Your task to perform on an android device: turn vacation reply on in the gmail app Image 0: 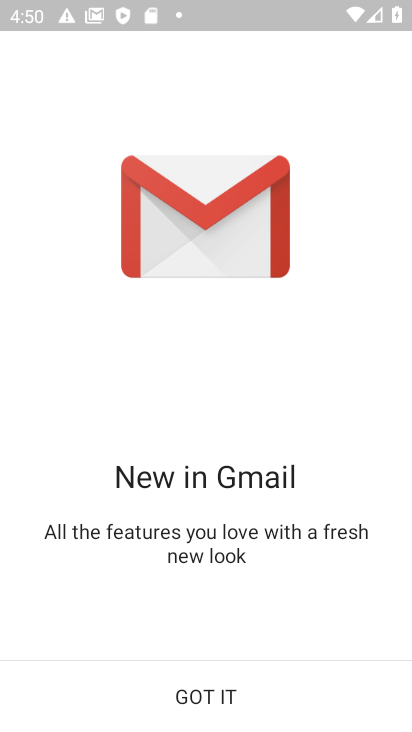
Step 0: click (281, 704)
Your task to perform on an android device: turn vacation reply on in the gmail app Image 1: 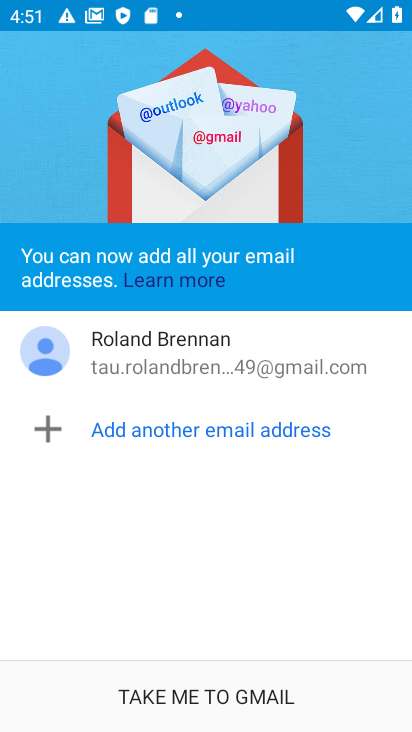
Step 1: click (304, 694)
Your task to perform on an android device: turn vacation reply on in the gmail app Image 2: 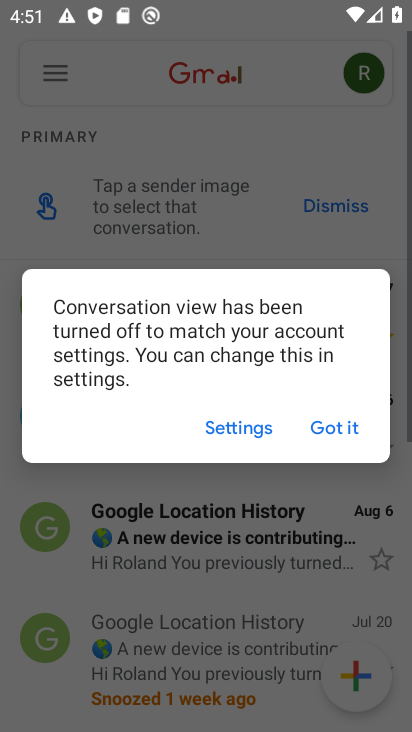
Step 2: click (315, 425)
Your task to perform on an android device: turn vacation reply on in the gmail app Image 3: 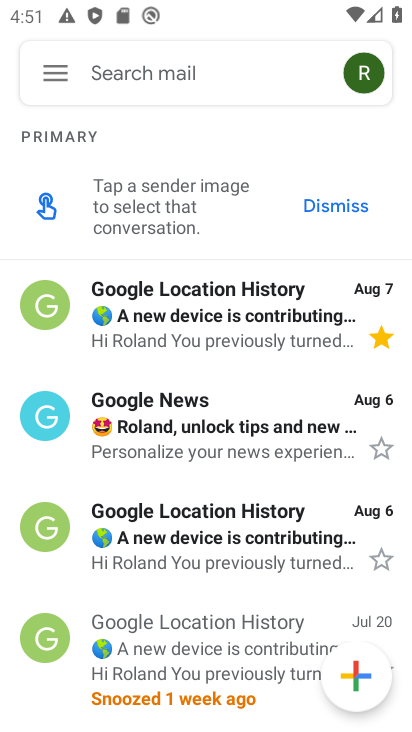
Step 3: click (58, 69)
Your task to perform on an android device: turn vacation reply on in the gmail app Image 4: 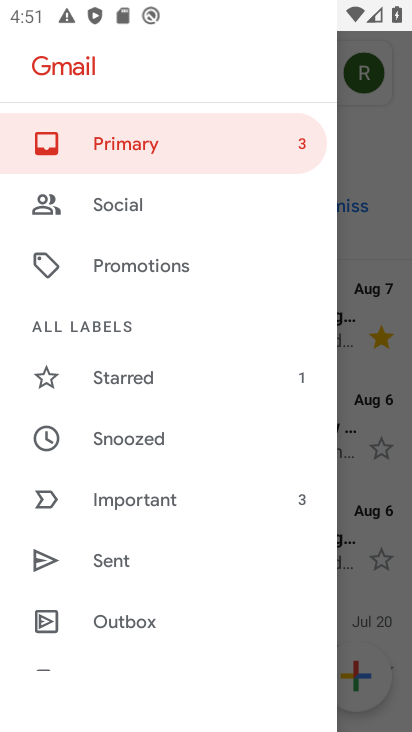
Step 4: drag from (189, 516) to (193, 219)
Your task to perform on an android device: turn vacation reply on in the gmail app Image 5: 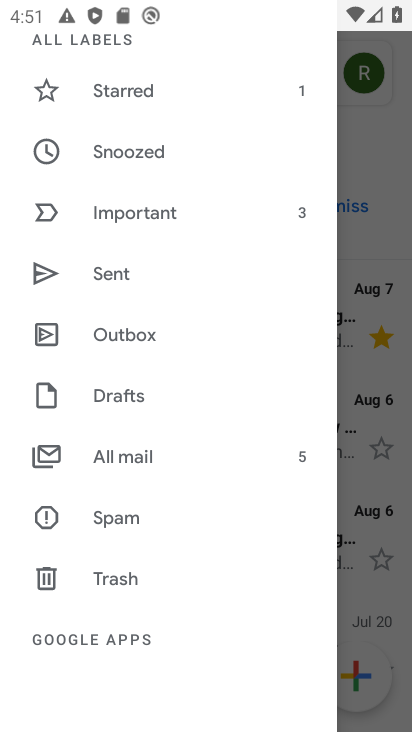
Step 5: drag from (173, 505) to (186, 144)
Your task to perform on an android device: turn vacation reply on in the gmail app Image 6: 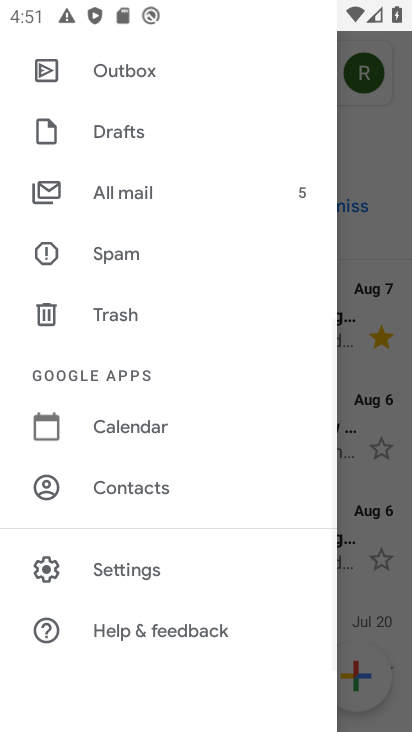
Step 6: click (144, 565)
Your task to perform on an android device: turn vacation reply on in the gmail app Image 7: 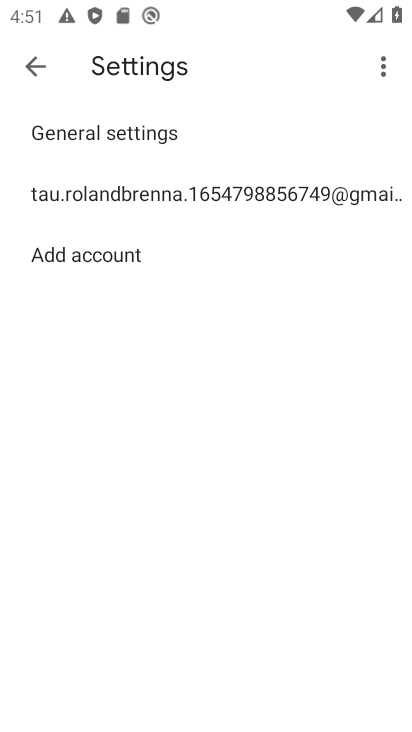
Step 7: click (284, 188)
Your task to perform on an android device: turn vacation reply on in the gmail app Image 8: 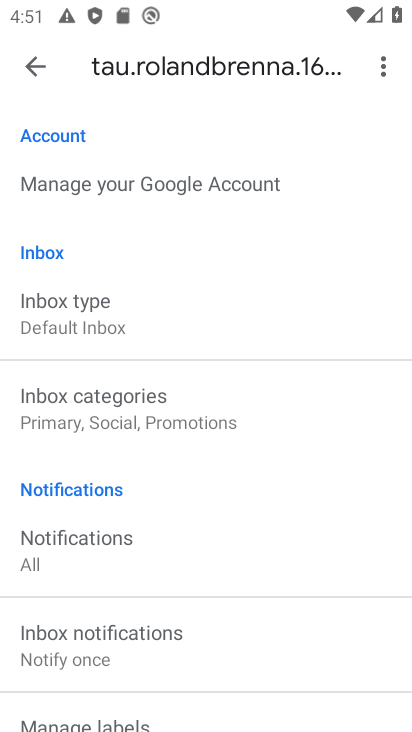
Step 8: drag from (223, 640) to (268, 12)
Your task to perform on an android device: turn vacation reply on in the gmail app Image 9: 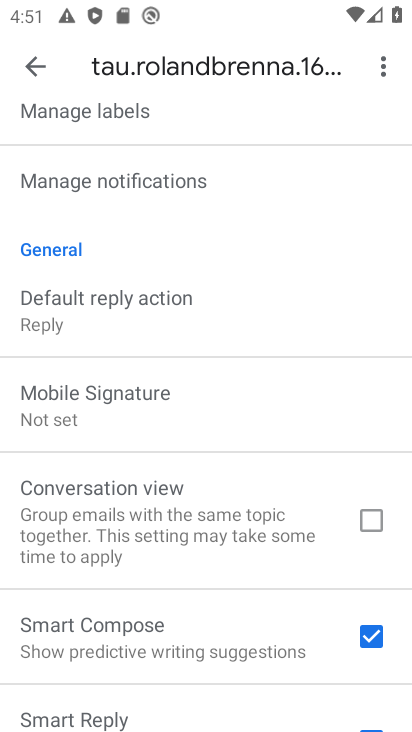
Step 9: drag from (240, 642) to (242, 37)
Your task to perform on an android device: turn vacation reply on in the gmail app Image 10: 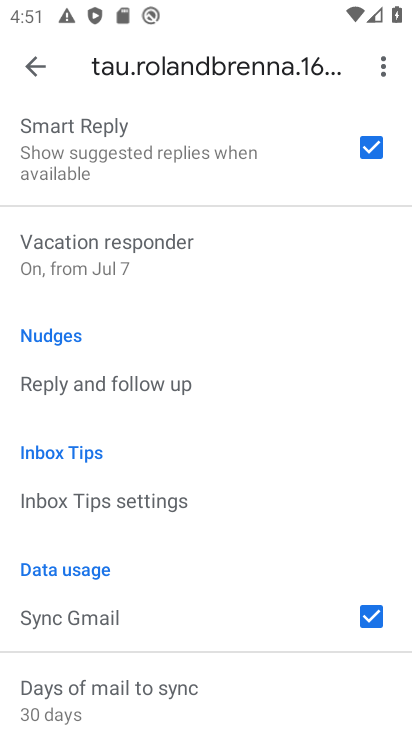
Step 10: drag from (246, 482) to (243, 117)
Your task to perform on an android device: turn vacation reply on in the gmail app Image 11: 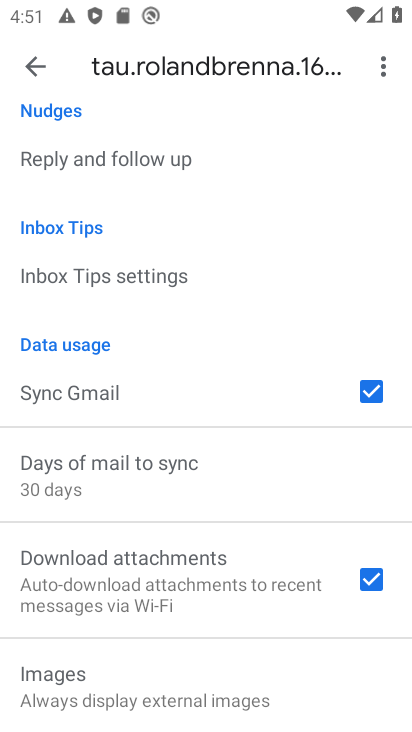
Step 11: drag from (202, 668) to (189, 167)
Your task to perform on an android device: turn vacation reply on in the gmail app Image 12: 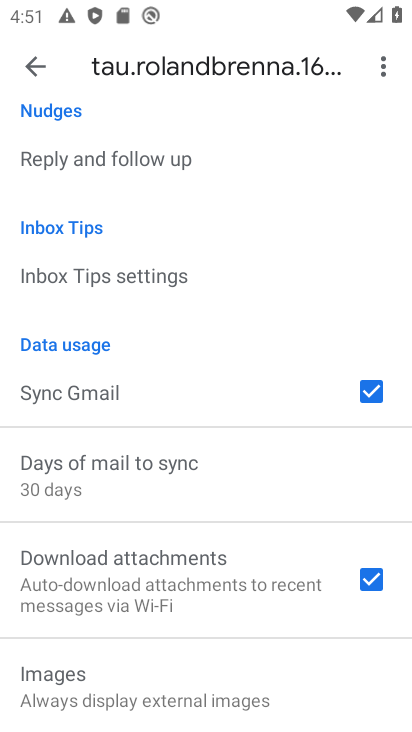
Step 12: drag from (240, 204) to (230, 499)
Your task to perform on an android device: turn vacation reply on in the gmail app Image 13: 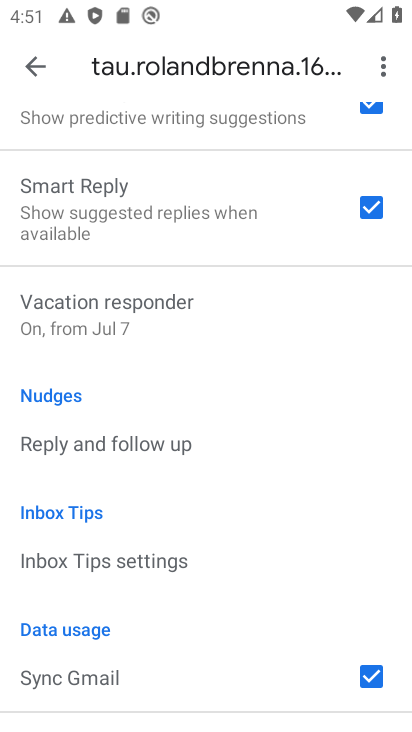
Step 13: click (218, 309)
Your task to perform on an android device: turn vacation reply on in the gmail app Image 14: 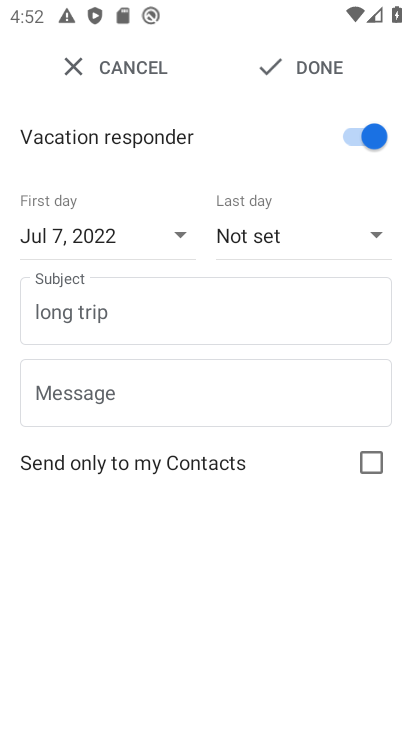
Step 14: task complete